Your task to perform on an android device: empty trash in google photos Image 0: 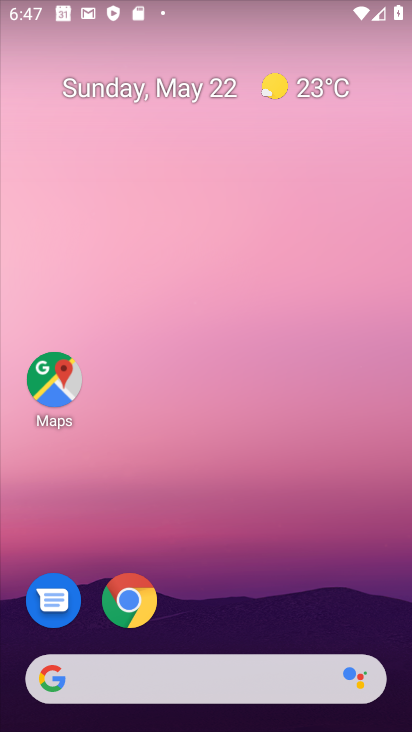
Step 0: drag from (314, 642) to (179, 45)
Your task to perform on an android device: empty trash in google photos Image 1: 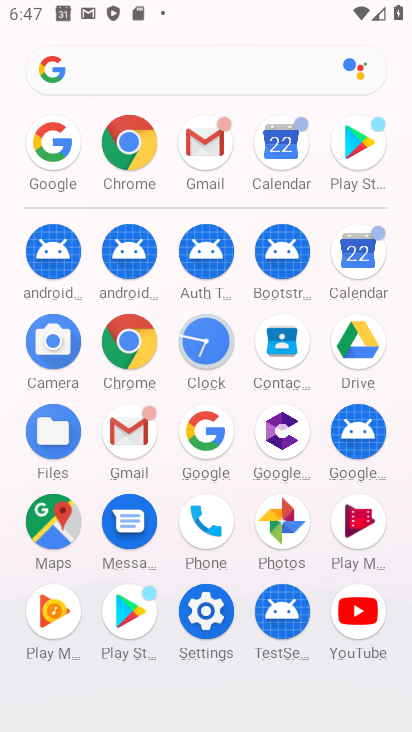
Step 1: click (272, 512)
Your task to perform on an android device: empty trash in google photos Image 2: 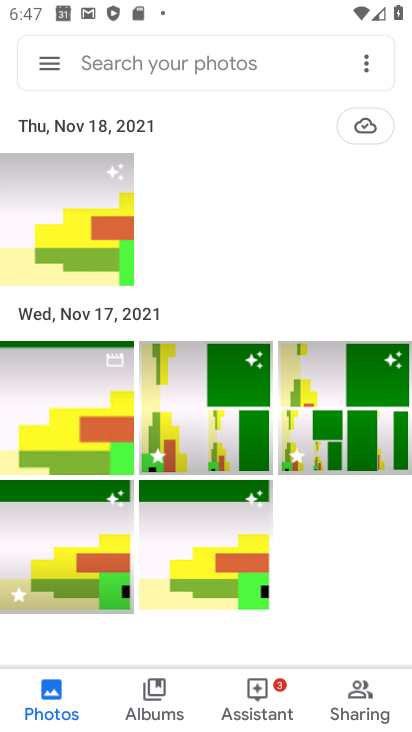
Step 2: click (58, 72)
Your task to perform on an android device: empty trash in google photos Image 3: 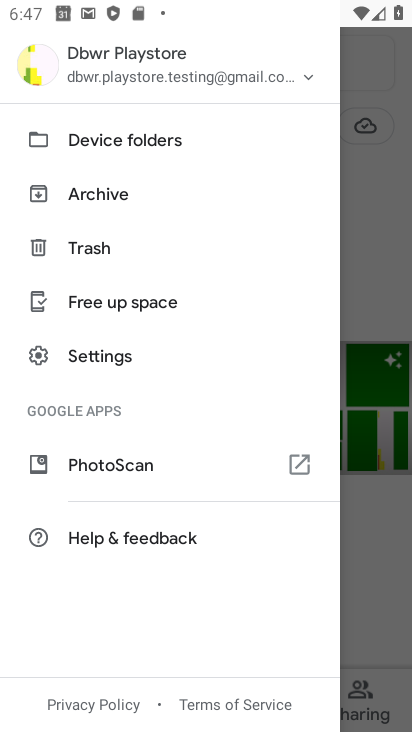
Step 3: click (90, 256)
Your task to perform on an android device: empty trash in google photos Image 4: 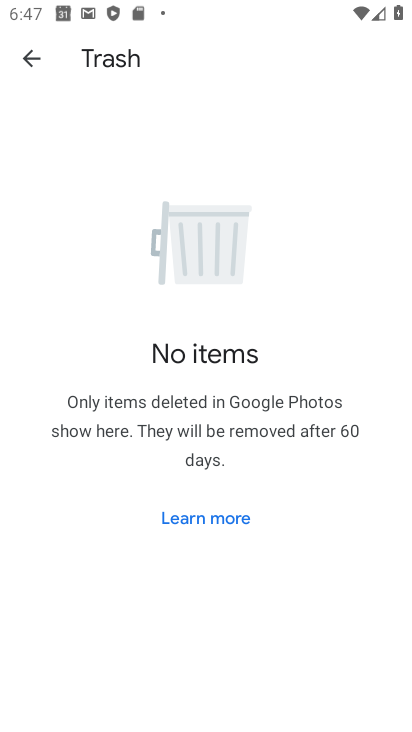
Step 4: task complete